Your task to perform on an android device: Search for Italian restaurants on Maps Image 0: 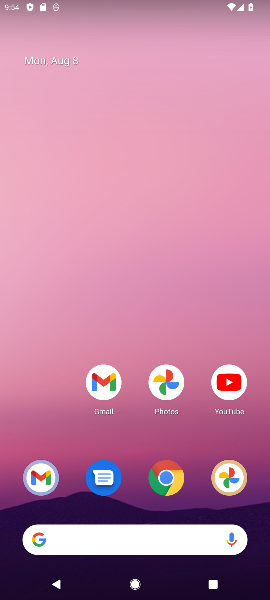
Step 0: click (172, 530)
Your task to perform on an android device: Search for Italian restaurants on Maps Image 1: 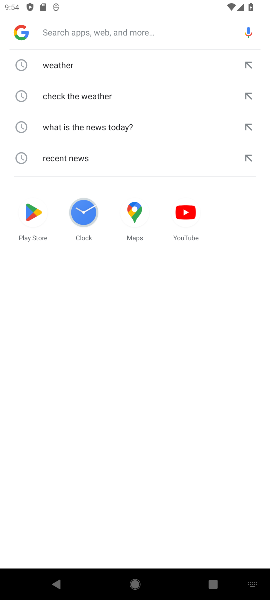
Step 1: click (65, 71)
Your task to perform on an android device: Search for Italian restaurants on Maps Image 2: 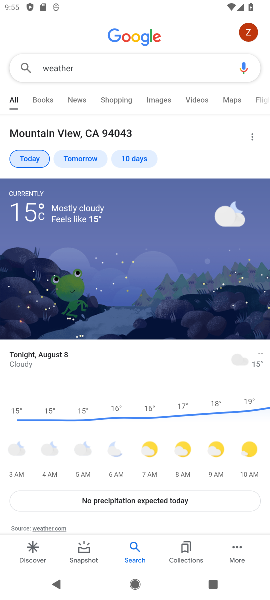
Step 2: task complete